Your task to perform on an android device: Open wifi settings Image 0: 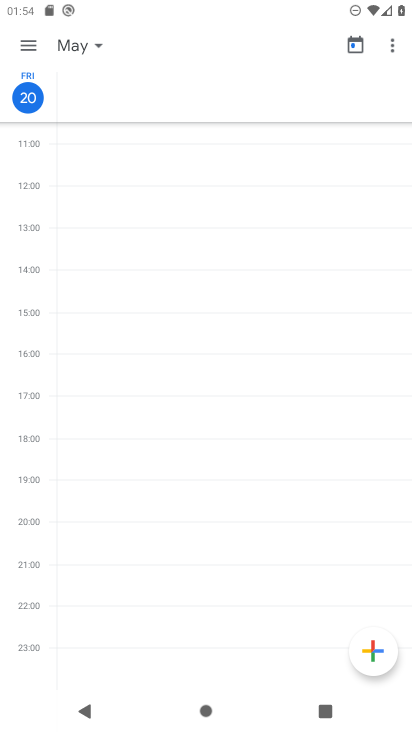
Step 0: press home button
Your task to perform on an android device: Open wifi settings Image 1: 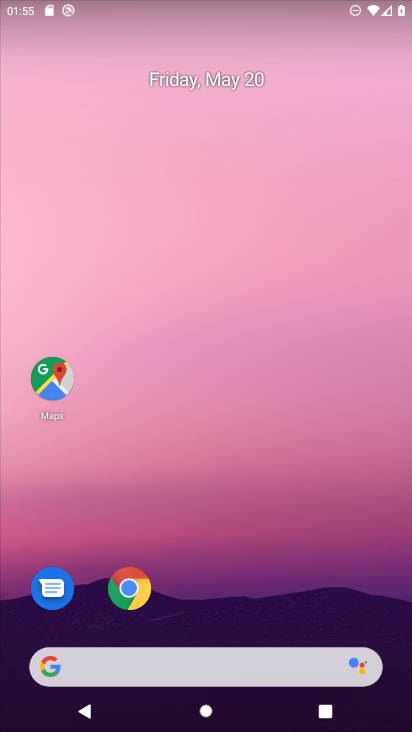
Step 1: drag from (382, 621) to (360, 114)
Your task to perform on an android device: Open wifi settings Image 2: 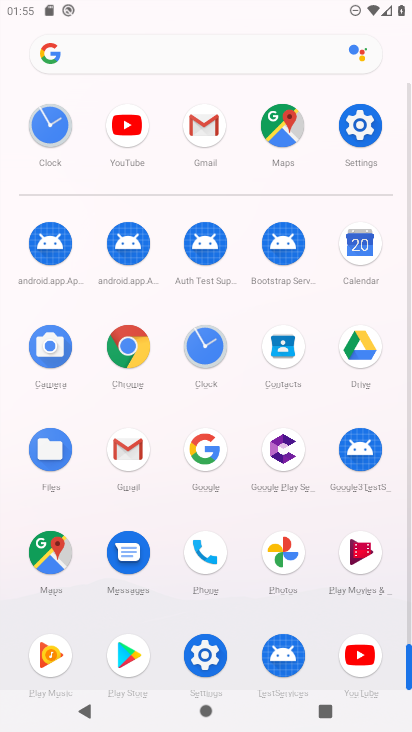
Step 2: click (206, 656)
Your task to perform on an android device: Open wifi settings Image 3: 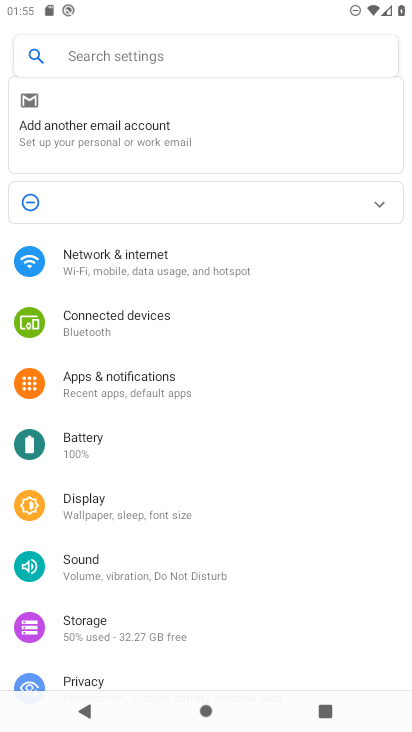
Step 3: click (128, 259)
Your task to perform on an android device: Open wifi settings Image 4: 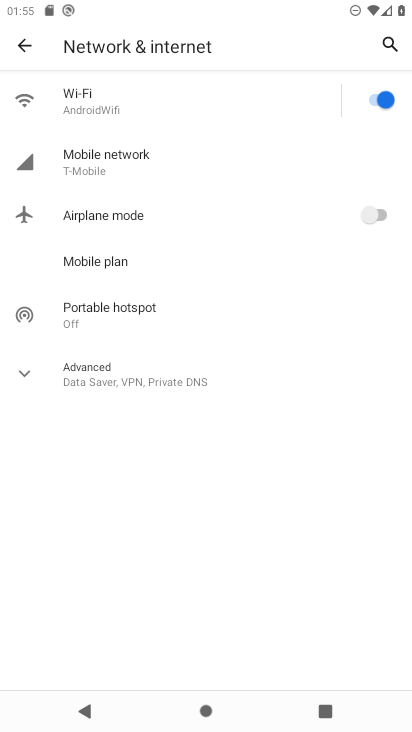
Step 4: click (85, 107)
Your task to perform on an android device: Open wifi settings Image 5: 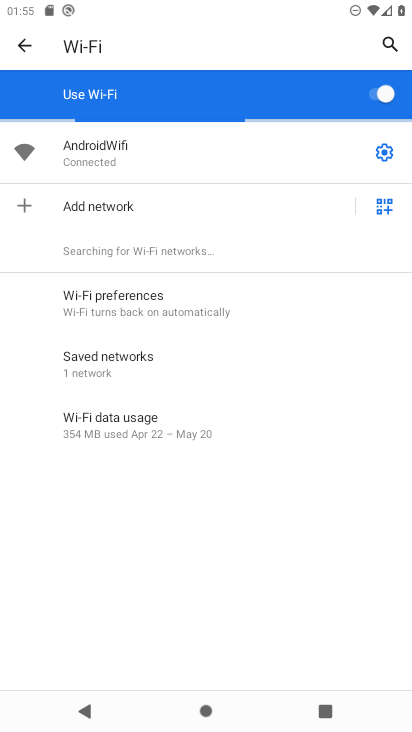
Step 5: click (383, 151)
Your task to perform on an android device: Open wifi settings Image 6: 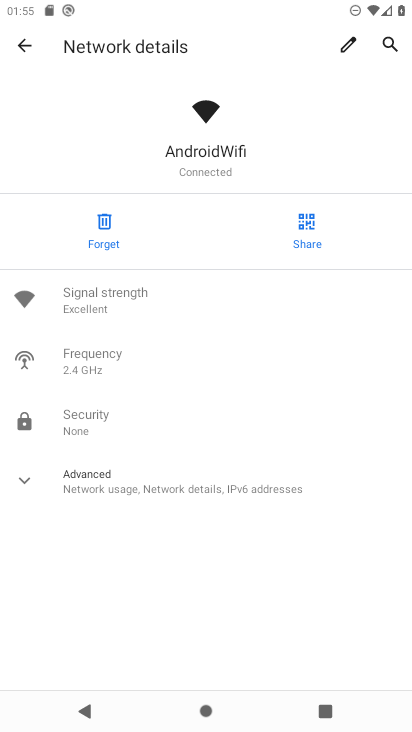
Step 6: click (23, 479)
Your task to perform on an android device: Open wifi settings Image 7: 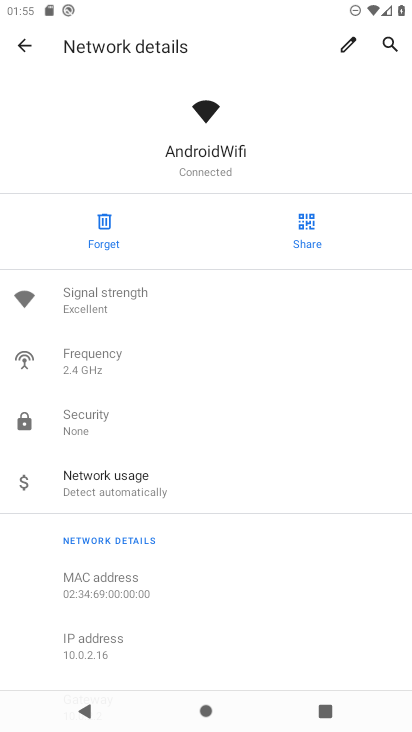
Step 7: task complete